Your task to perform on an android device: Turn off the flashlight Image 0: 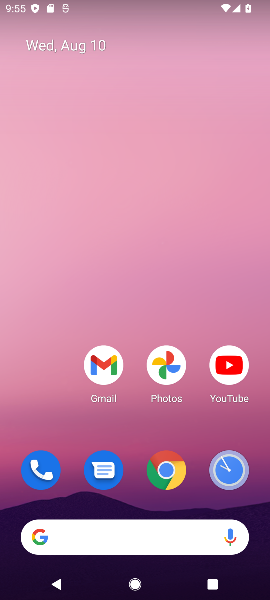
Step 0: drag from (128, 503) to (140, 93)
Your task to perform on an android device: Turn off the flashlight Image 1: 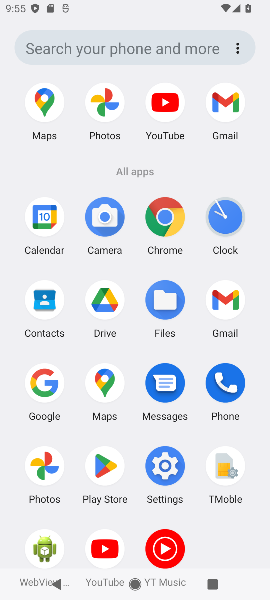
Step 1: click (180, 464)
Your task to perform on an android device: Turn off the flashlight Image 2: 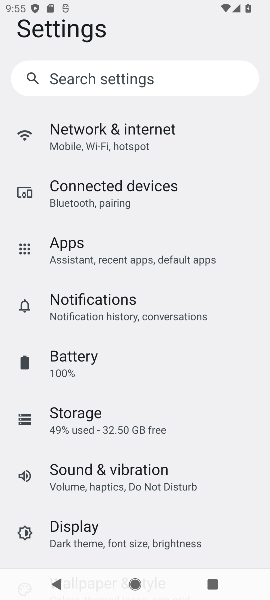
Step 2: task complete